Your task to perform on an android device: When is my next meeting? Image 0: 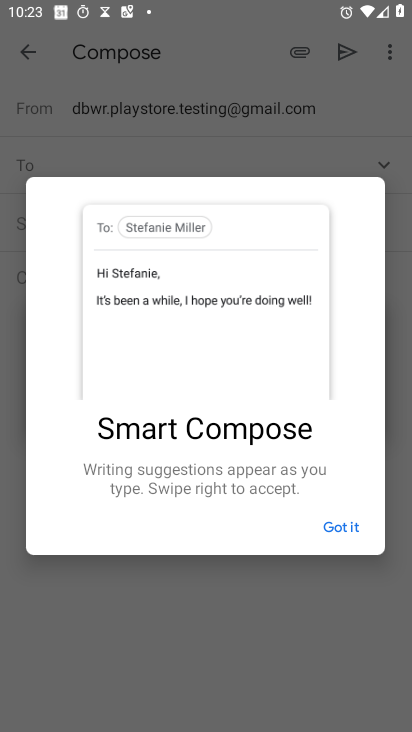
Step 0: press home button
Your task to perform on an android device: When is my next meeting? Image 1: 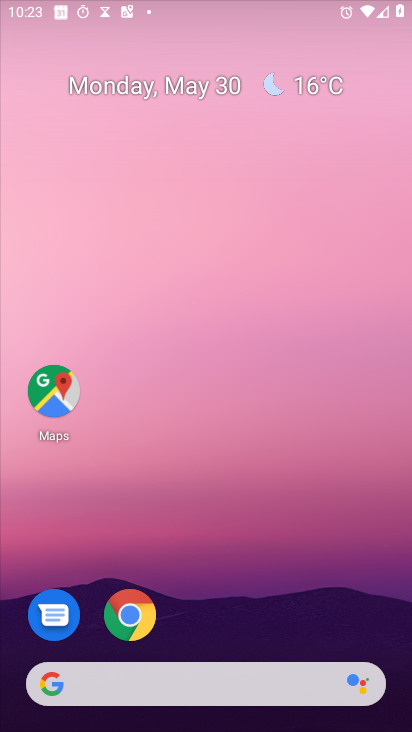
Step 1: drag from (345, 621) to (290, 75)
Your task to perform on an android device: When is my next meeting? Image 2: 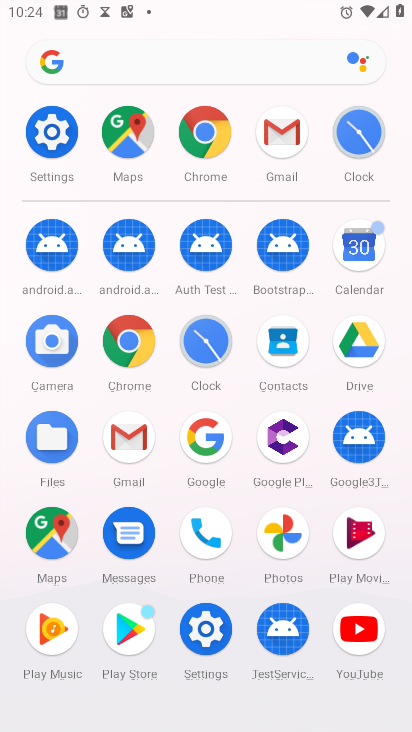
Step 2: click (359, 275)
Your task to perform on an android device: When is my next meeting? Image 3: 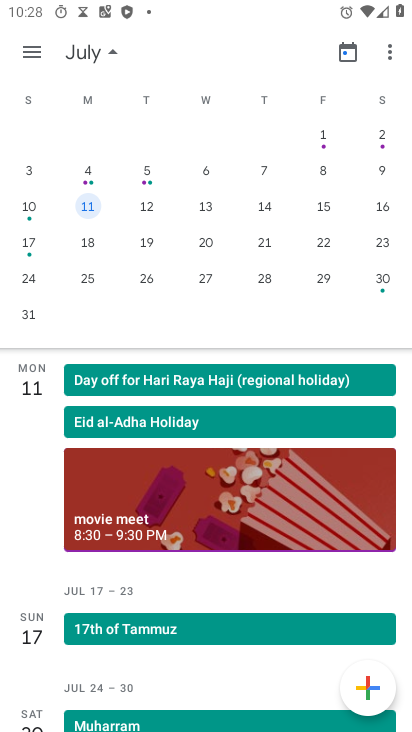
Step 3: task complete